Your task to perform on an android device: Open Youtube and go to the subscriptions tab Image 0: 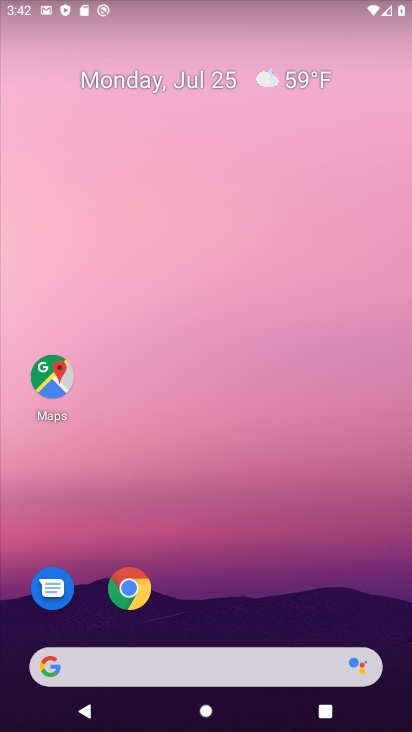
Step 0: press home button
Your task to perform on an android device: Open Youtube and go to the subscriptions tab Image 1: 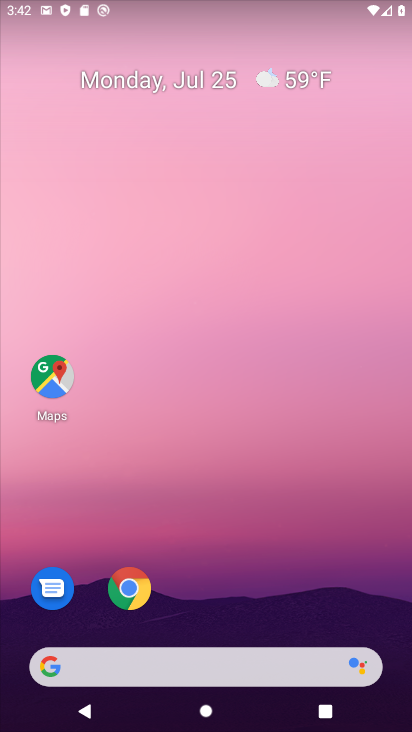
Step 1: drag from (290, 686) to (266, 277)
Your task to perform on an android device: Open Youtube and go to the subscriptions tab Image 2: 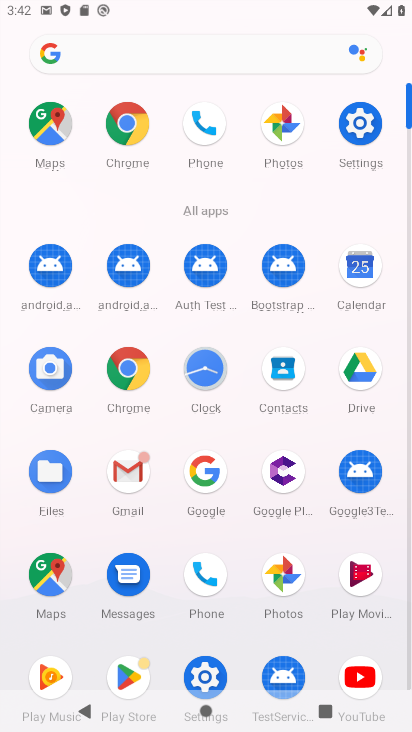
Step 2: click (365, 674)
Your task to perform on an android device: Open Youtube and go to the subscriptions tab Image 3: 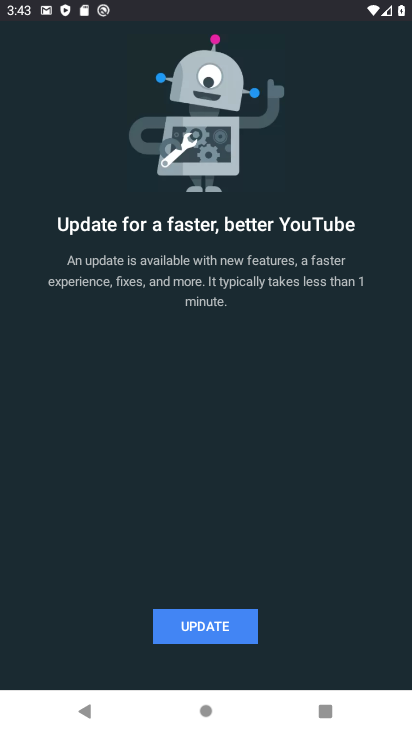
Step 3: click (214, 622)
Your task to perform on an android device: Open Youtube and go to the subscriptions tab Image 4: 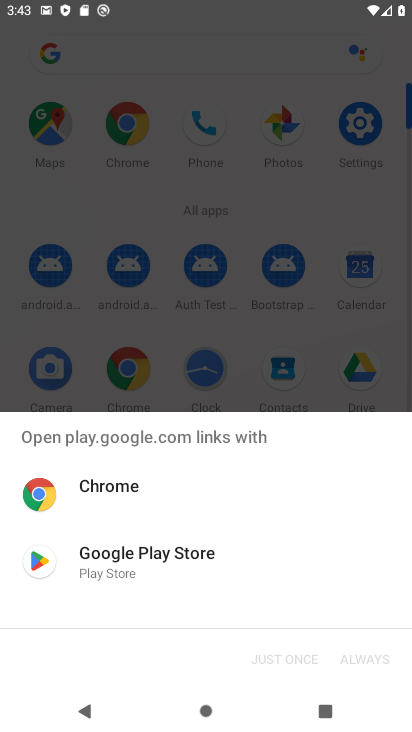
Step 4: click (160, 555)
Your task to perform on an android device: Open Youtube and go to the subscriptions tab Image 5: 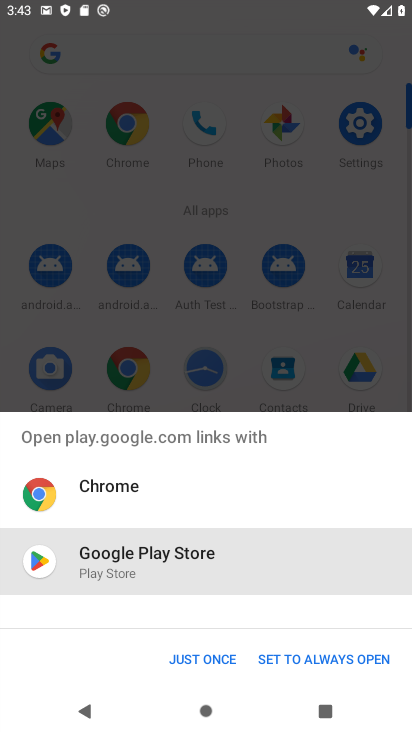
Step 5: click (190, 662)
Your task to perform on an android device: Open Youtube and go to the subscriptions tab Image 6: 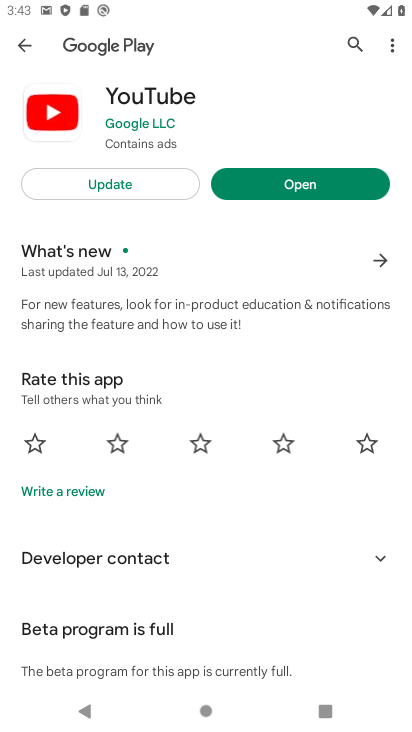
Step 6: click (120, 177)
Your task to perform on an android device: Open Youtube and go to the subscriptions tab Image 7: 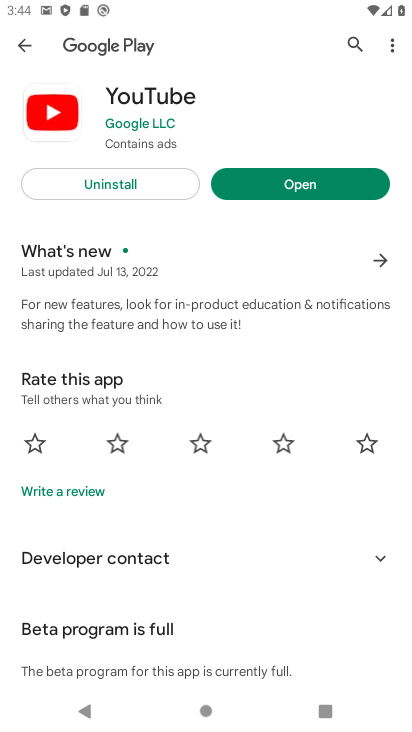
Step 7: click (284, 181)
Your task to perform on an android device: Open Youtube and go to the subscriptions tab Image 8: 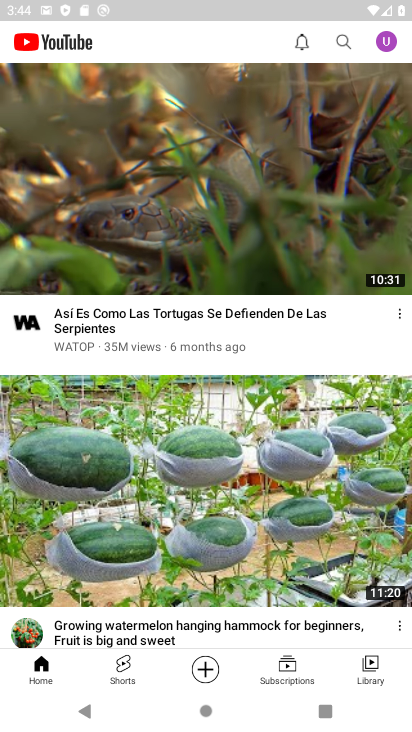
Step 8: click (292, 657)
Your task to perform on an android device: Open Youtube and go to the subscriptions tab Image 9: 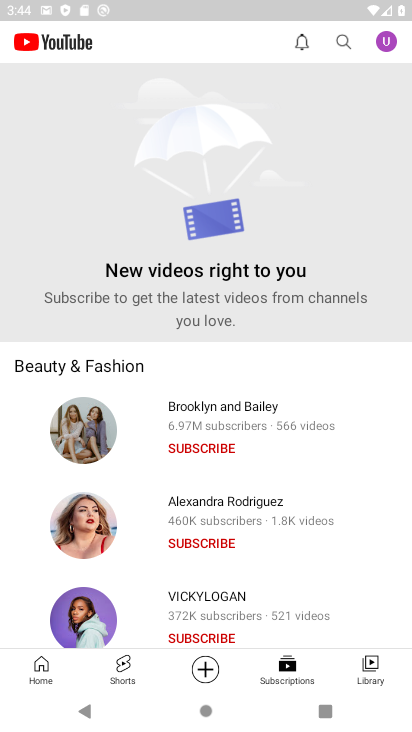
Step 9: task complete